Your task to perform on an android device: toggle pop-ups in chrome Image 0: 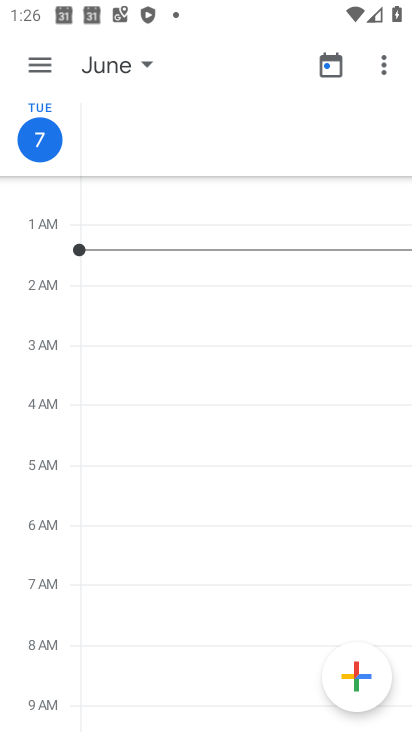
Step 0: press home button
Your task to perform on an android device: toggle pop-ups in chrome Image 1: 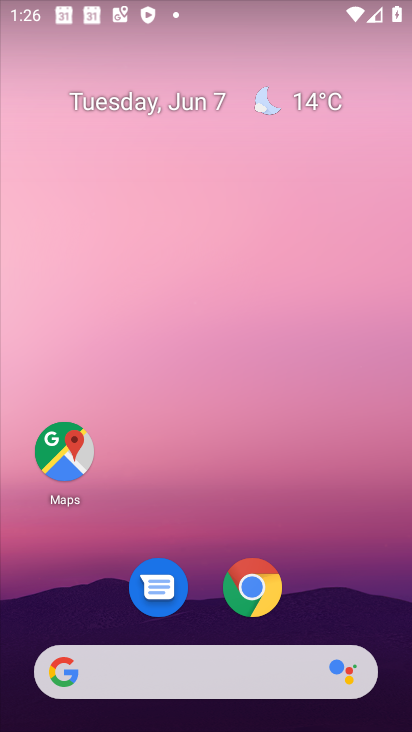
Step 1: drag from (308, 626) to (325, 109)
Your task to perform on an android device: toggle pop-ups in chrome Image 2: 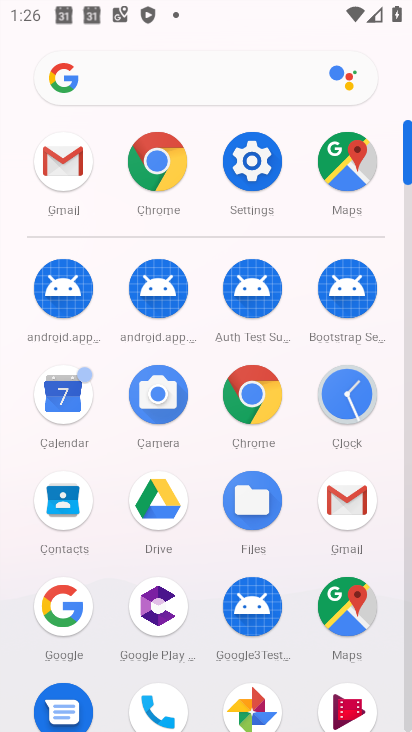
Step 2: click (254, 397)
Your task to perform on an android device: toggle pop-ups in chrome Image 3: 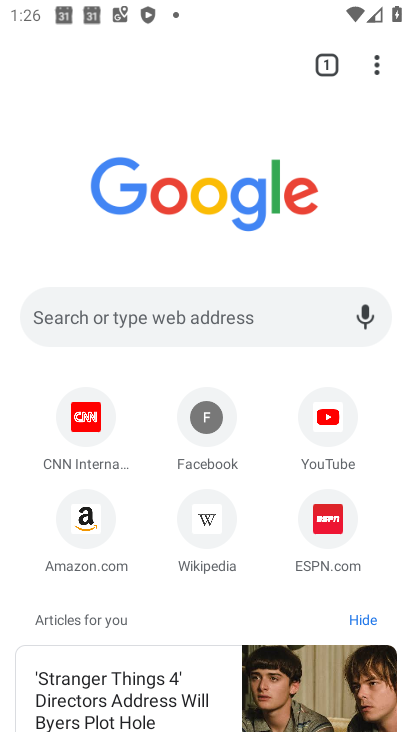
Step 3: click (374, 59)
Your task to perform on an android device: toggle pop-ups in chrome Image 4: 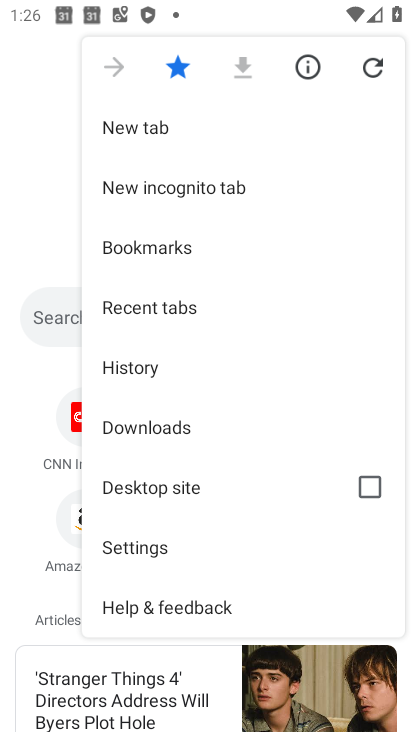
Step 4: click (164, 547)
Your task to perform on an android device: toggle pop-ups in chrome Image 5: 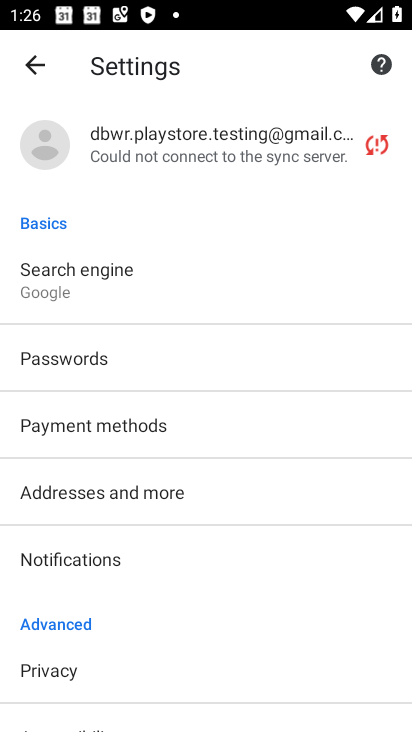
Step 5: drag from (151, 625) to (220, 260)
Your task to perform on an android device: toggle pop-ups in chrome Image 6: 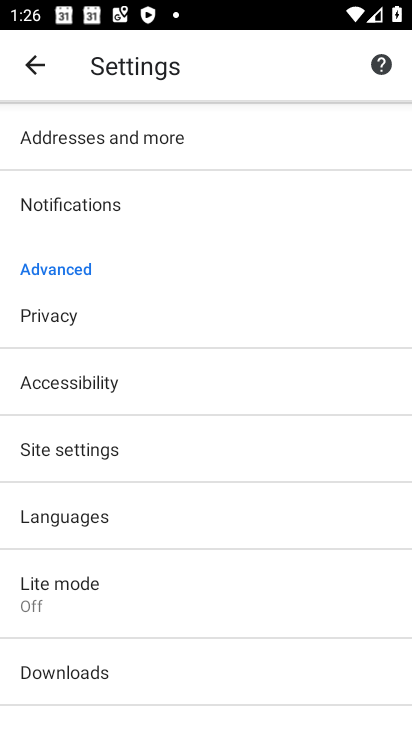
Step 6: click (94, 456)
Your task to perform on an android device: toggle pop-ups in chrome Image 7: 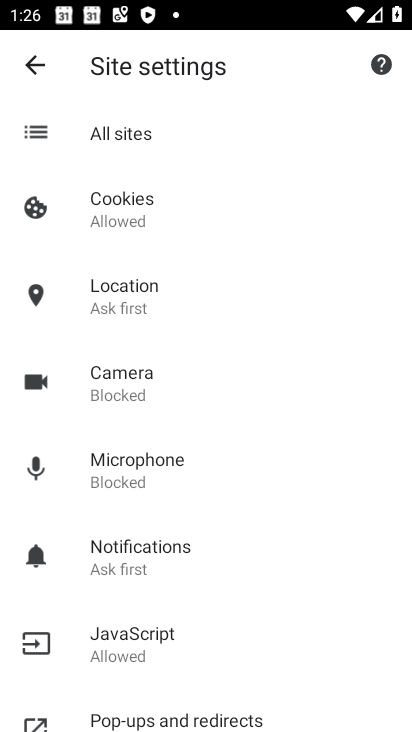
Step 7: click (95, 706)
Your task to perform on an android device: toggle pop-ups in chrome Image 8: 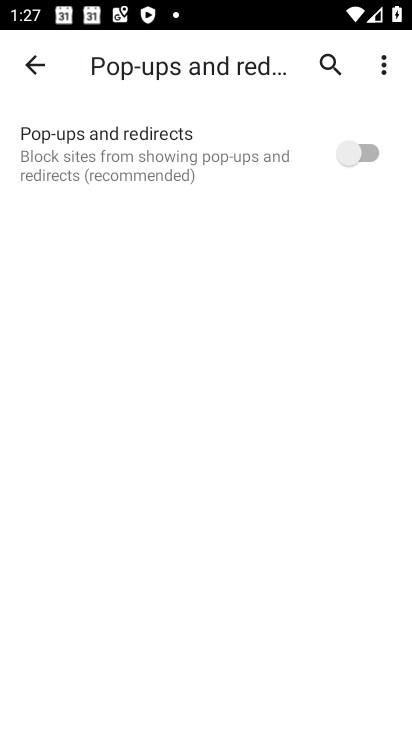
Step 8: click (374, 155)
Your task to perform on an android device: toggle pop-ups in chrome Image 9: 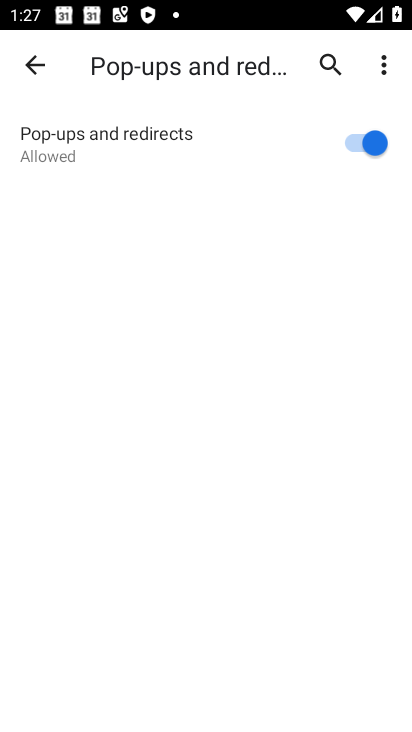
Step 9: task complete